Your task to perform on an android device: turn pop-ups off in chrome Image 0: 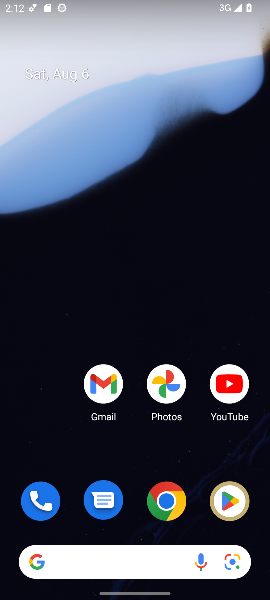
Step 0: press home button
Your task to perform on an android device: turn pop-ups off in chrome Image 1: 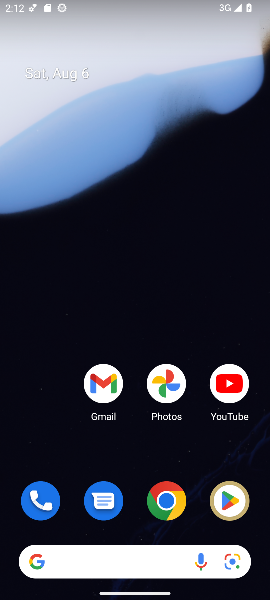
Step 1: click (166, 521)
Your task to perform on an android device: turn pop-ups off in chrome Image 2: 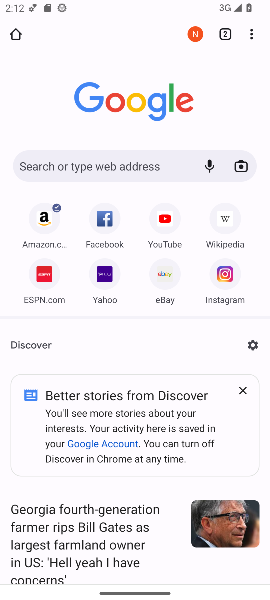
Step 2: drag from (254, 35) to (147, 308)
Your task to perform on an android device: turn pop-ups off in chrome Image 3: 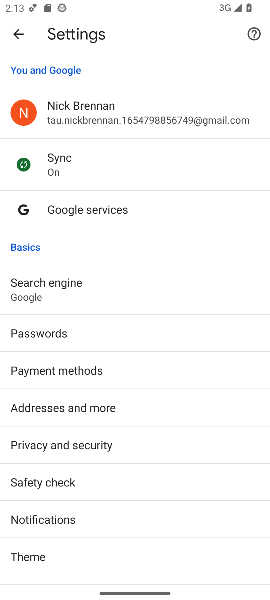
Step 3: drag from (156, 561) to (157, 196)
Your task to perform on an android device: turn pop-ups off in chrome Image 4: 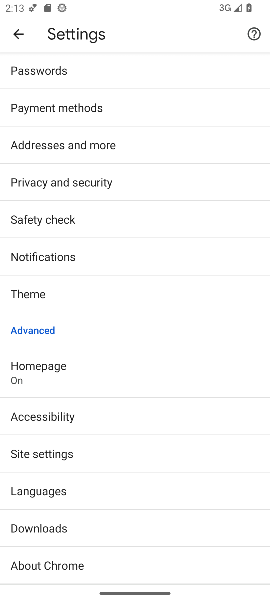
Step 4: click (54, 455)
Your task to perform on an android device: turn pop-ups off in chrome Image 5: 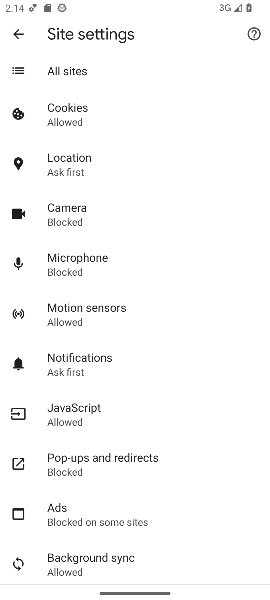
Step 5: click (68, 466)
Your task to perform on an android device: turn pop-ups off in chrome Image 6: 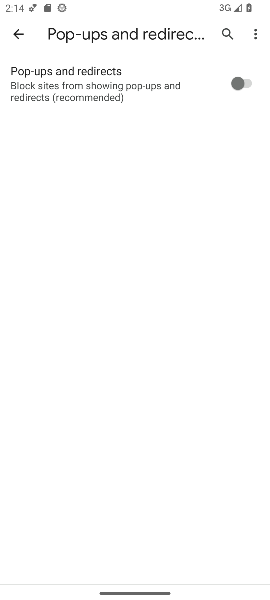
Step 6: task complete